Your task to perform on an android device: turn on bluetooth scan Image 0: 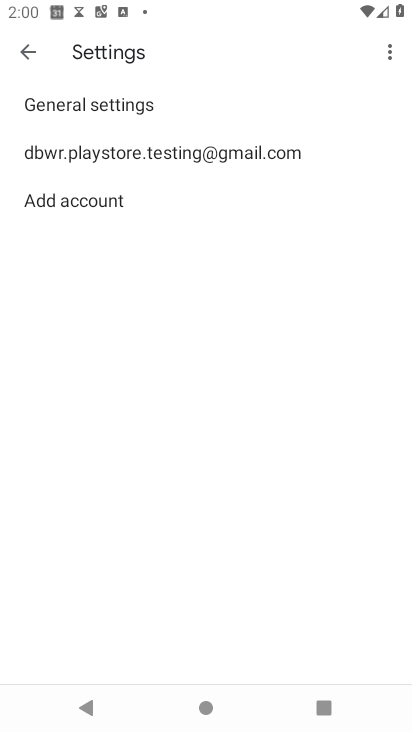
Step 0: press home button
Your task to perform on an android device: turn on bluetooth scan Image 1: 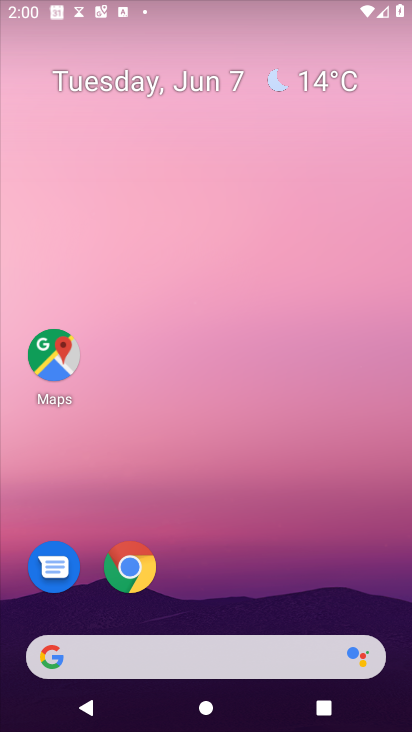
Step 1: drag from (283, 657) to (310, 23)
Your task to perform on an android device: turn on bluetooth scan Image 2: 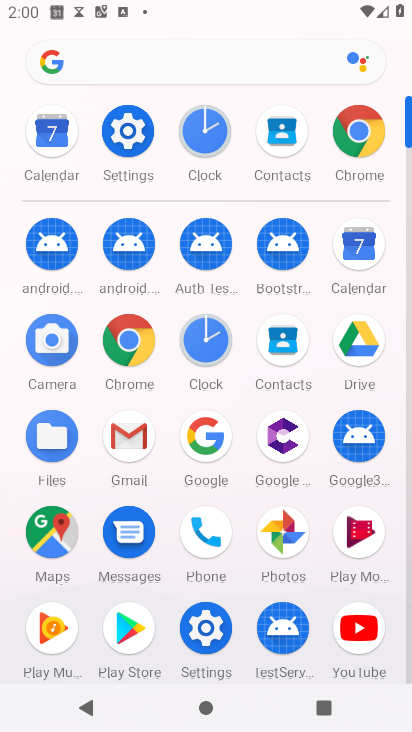
Step 2: click (143, 129)
Your task to perform on an android device: turn on bluetooth scan Image 3: 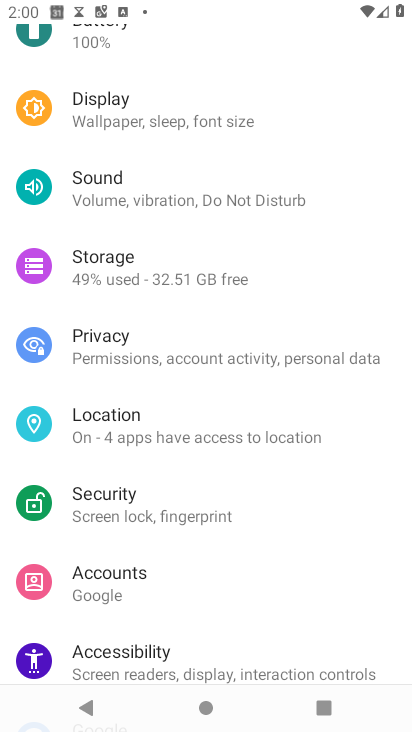
Step 3: drag from (211, 230) to (230, 602)
Your task to perform on an android device: turn on bluetooth scan Image 4: 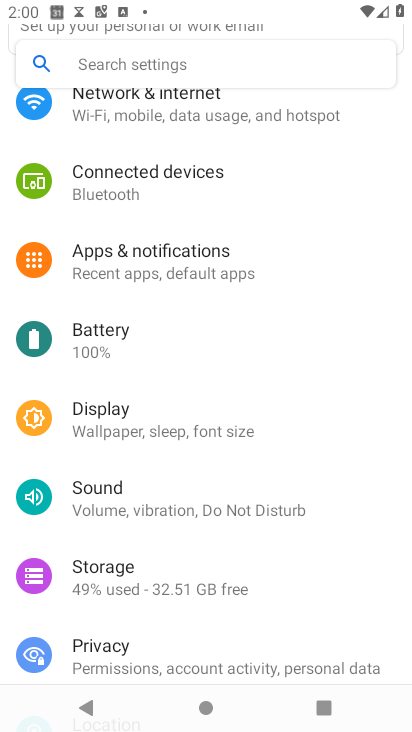
Step 4: drag from (161, 627) to (188, 342)
Your task to perform on an android device: turn on bluetooth scan Image 5: 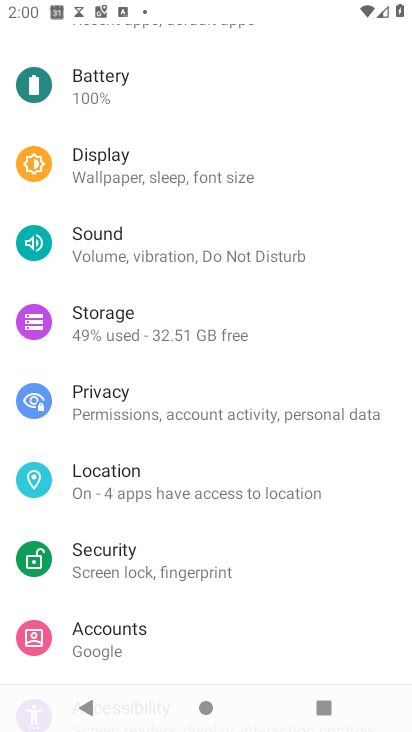
Step 5: click (166, 470)
Your task to perform on an android device: turn on bluetooth scan Image 6: 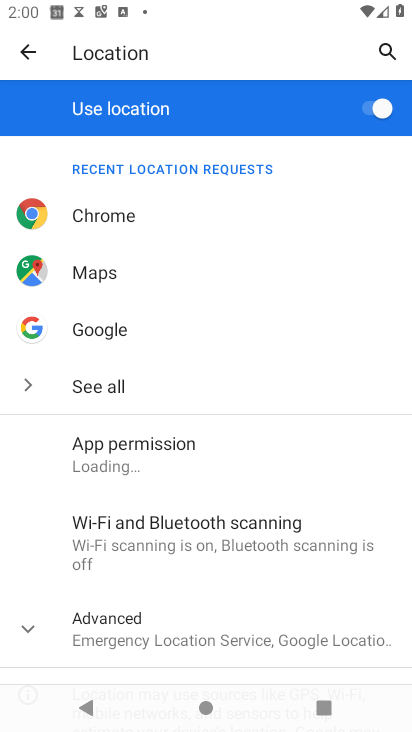
Step 6: click (274, 542)
Your task to perform on an android device: turn on bluetooth scan Image 7: 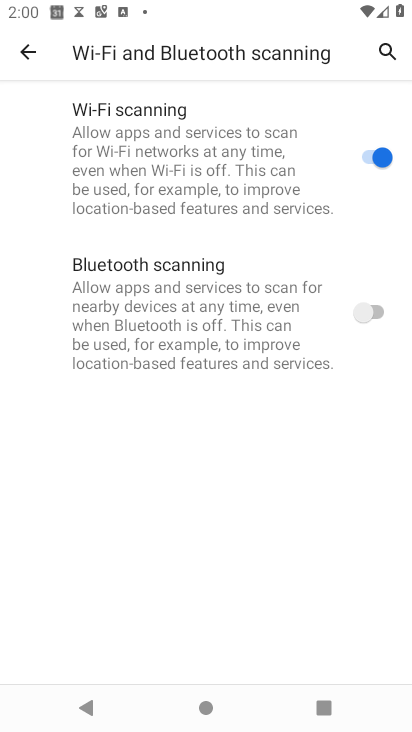
Step 7: click (374, 312)
Your task to perform on an android device: turn on bluetooth scan Image 8: 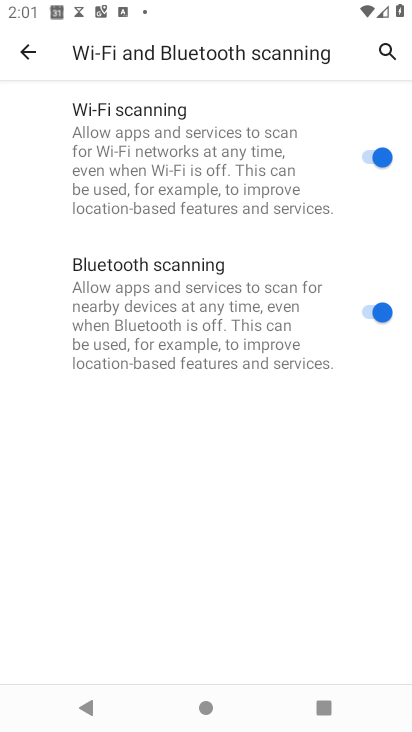
Step 8: task complete